Your task to perform on an android device: Open Youtube and go to the subscriptions tab Image 0: 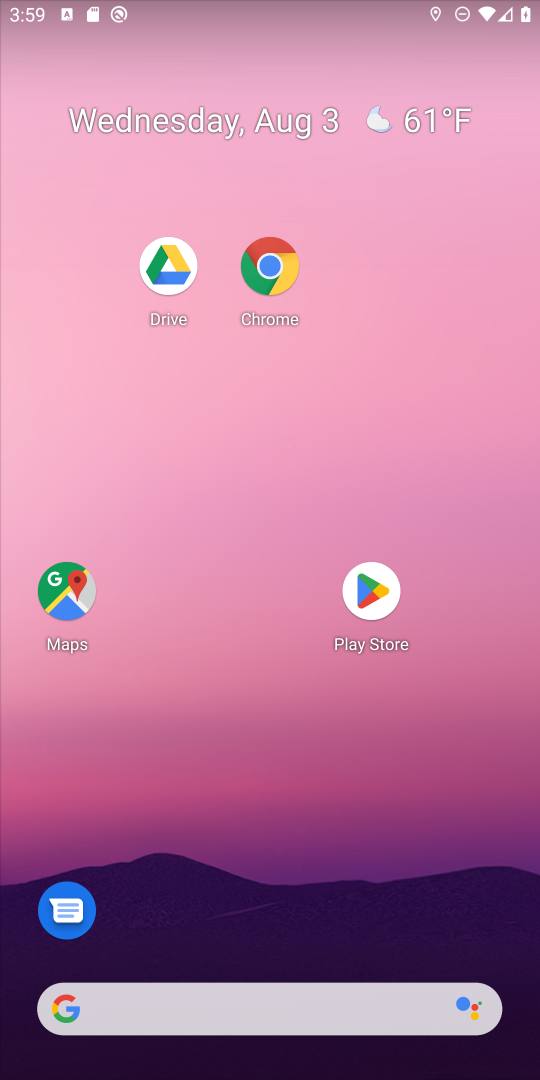
Step 0: press home button
Your task to perform on an android device: Open Youtube and go to the subscriptions tab Image 1: 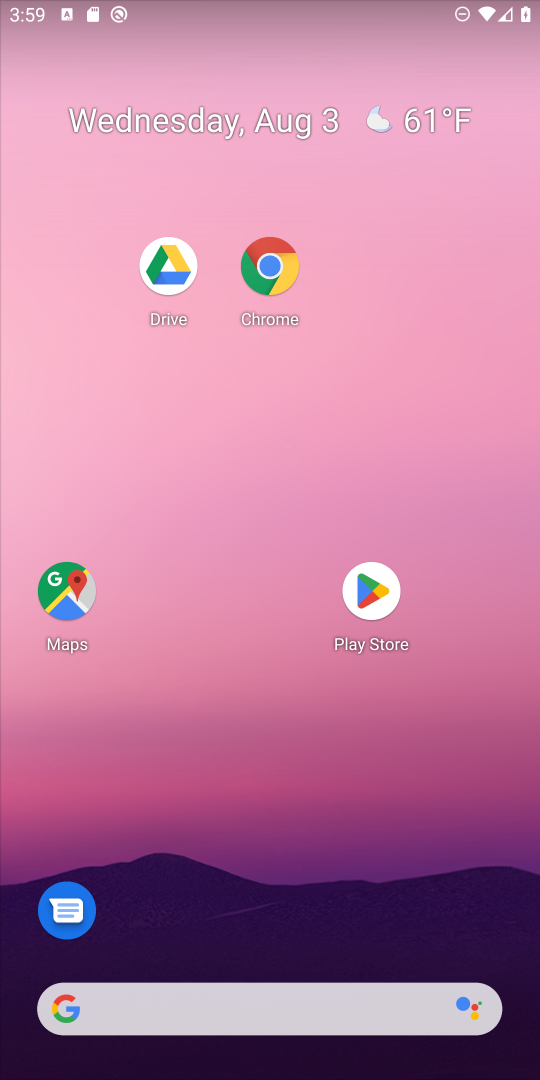
Step 1: drag from (363, 1022) to (334, 33)
Your task to perform on an android device: Open Youtube and go to the subscriptions tab Image 2: 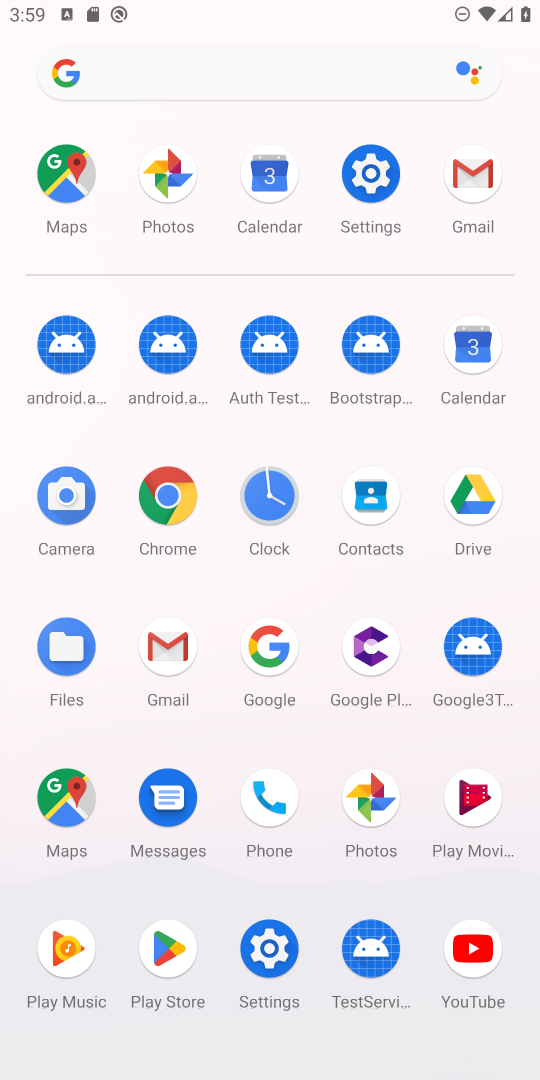
Step 2: click (473, 932)
Your task to perform on an android device: Open Youtube and go to the subscriptions tab Image 3: 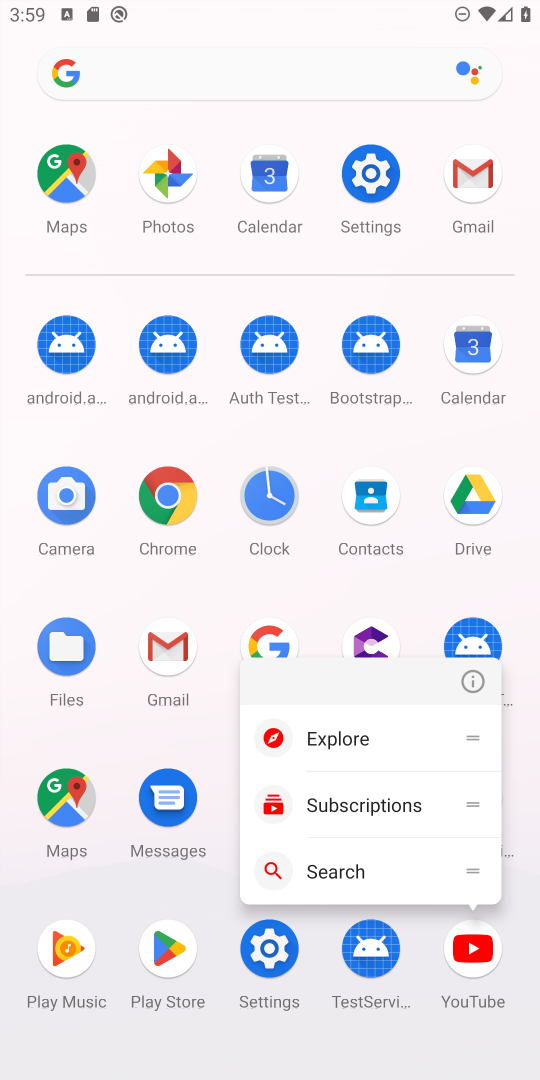
Step 3: click (452, 940)
Your task to perform on an android device: Open Youtube and go to the subscriptions tab Image 4: 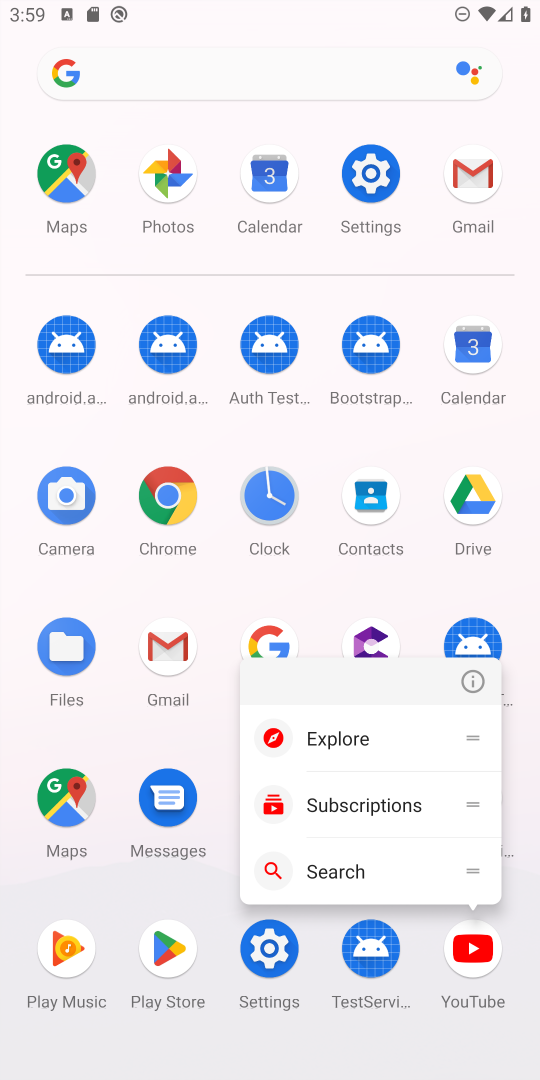
Step 4: click (456, 940)
Your task to perform on an android device: Open Youtube and go to the subscriptions tab Image 5: 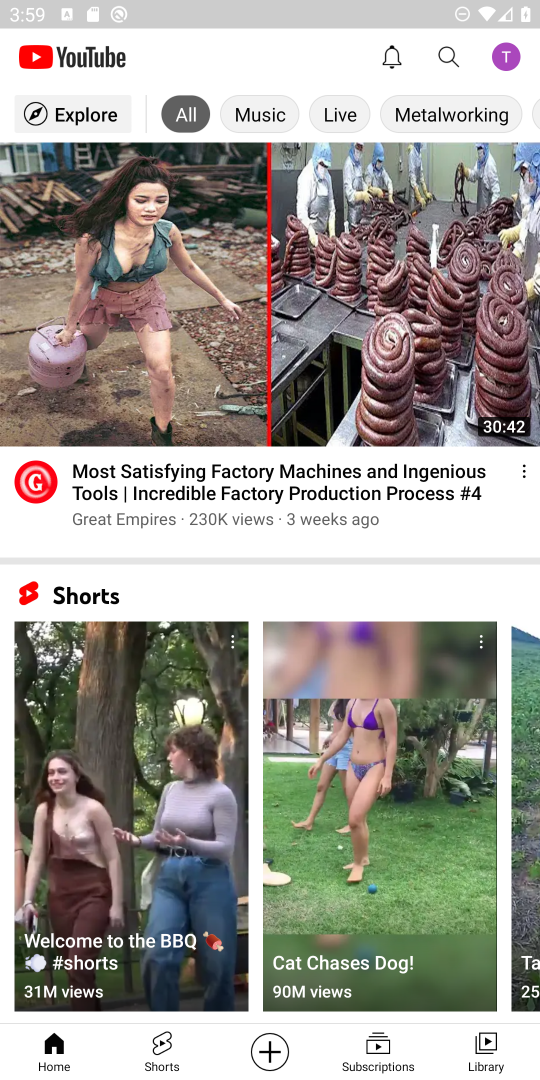
Step 5: click (381, 1040)
Your task to perform on an android device: Open Youtube and go to the subscriptions tab Image 6: 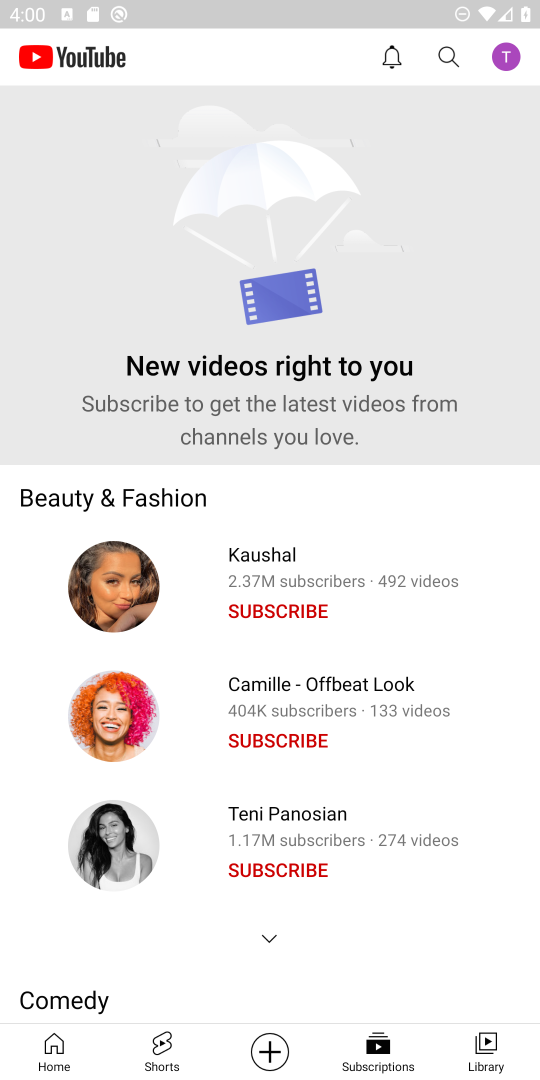
Step 6: task complete